Your task to perform on an android device: turn on data saver in the chrome app Image 0: 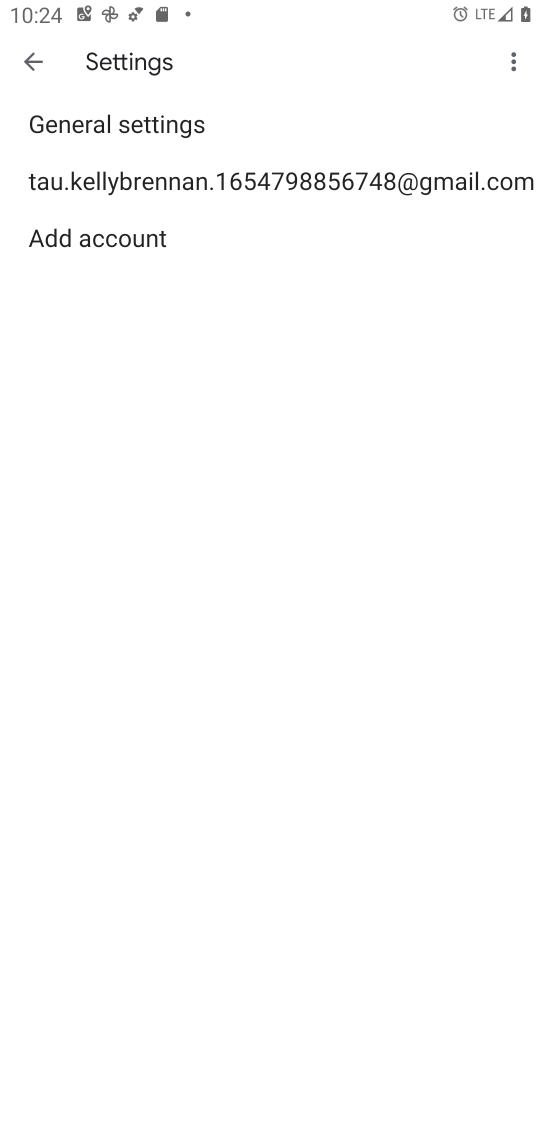
Step 0: press home button
Your task to perform on an android device: turn on data saver in the chrome app Image 1: 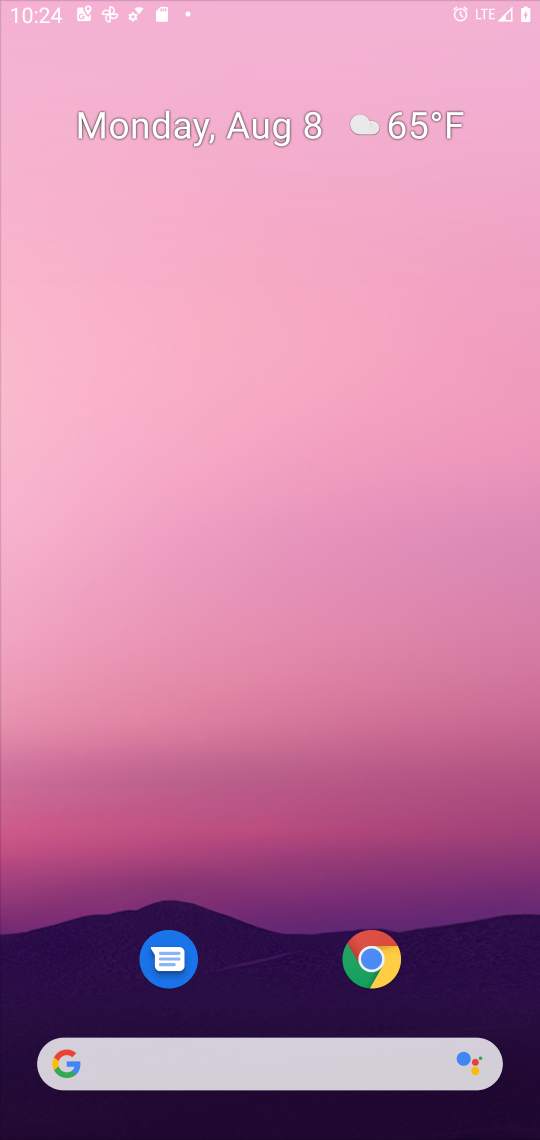
Step 1: drag from (484, 963) to (274, 5)
Your task to perform on an android device: turn on data saver in the chrome app Image 2: 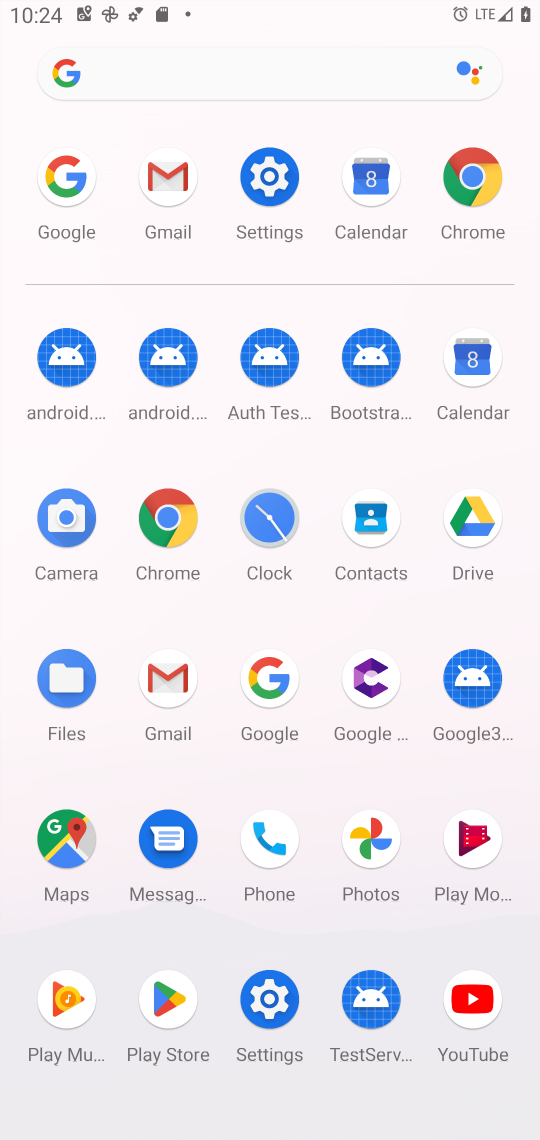
Step 2: click (176, 531)
Your task to perform on an android device: turn on data saver in the chrome app Image 3: 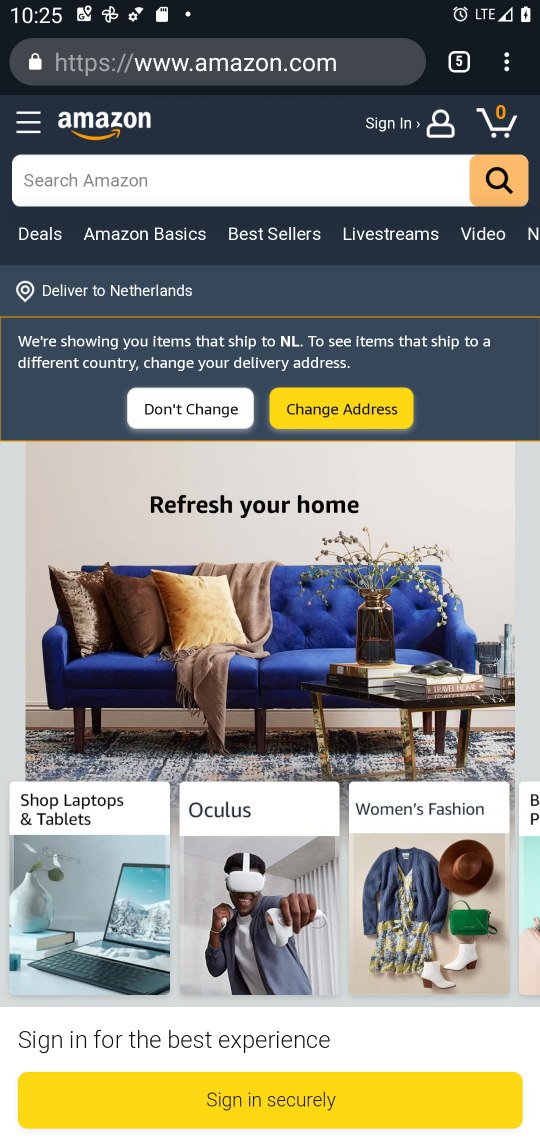
Step 3: click (506, 60)
Your task to perform on an android device: turn on data saver in the chrome app Image 4: 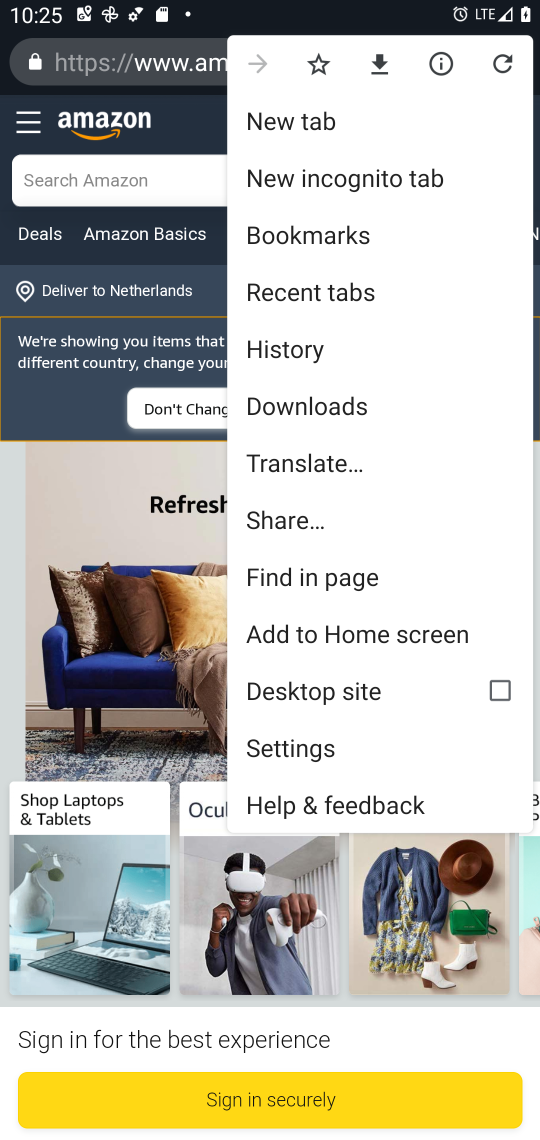
Step 4: click (310, 729)
Your task to perform on an android device: turn on data saver in the chrome app Image 5: 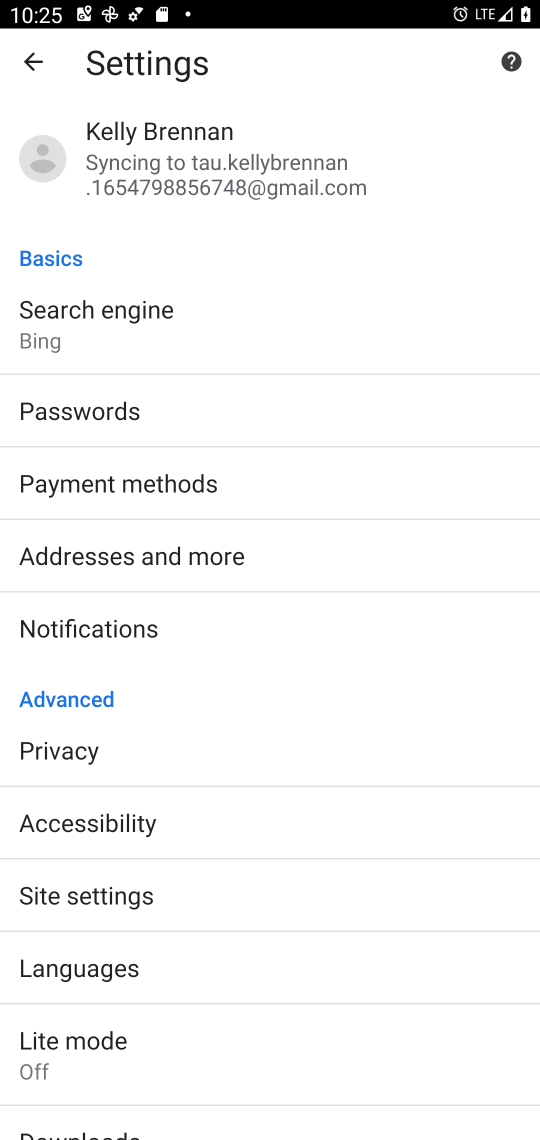
Step 5: click (142, 1061)
Your task to perform on an android device: turn on data saver in the chrome app Image 6: 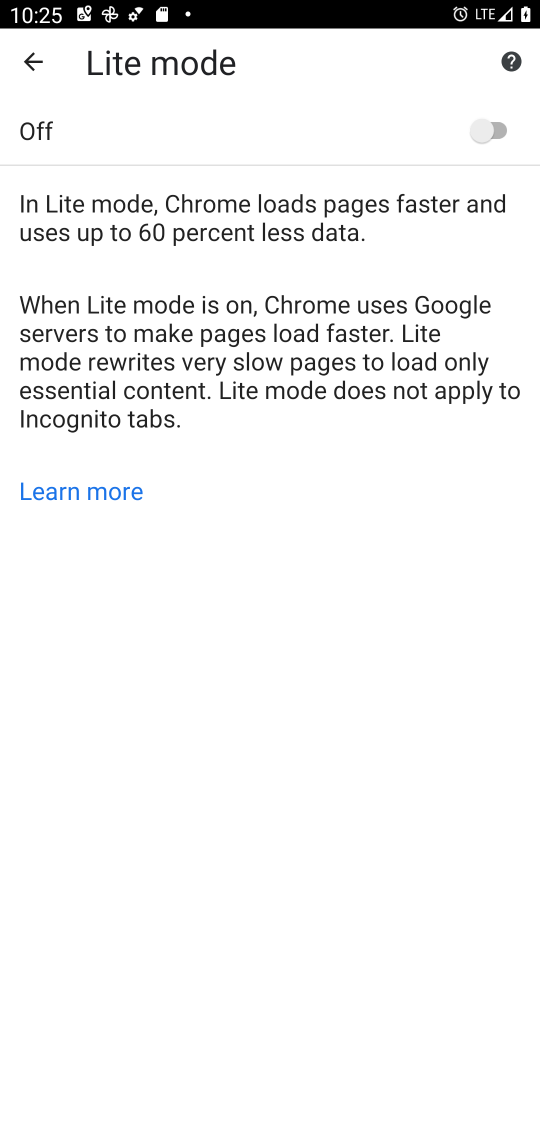
Step 6: click (502, 127)
Your task to perform on an android device: turn on data saver in the chrome app Image 7: 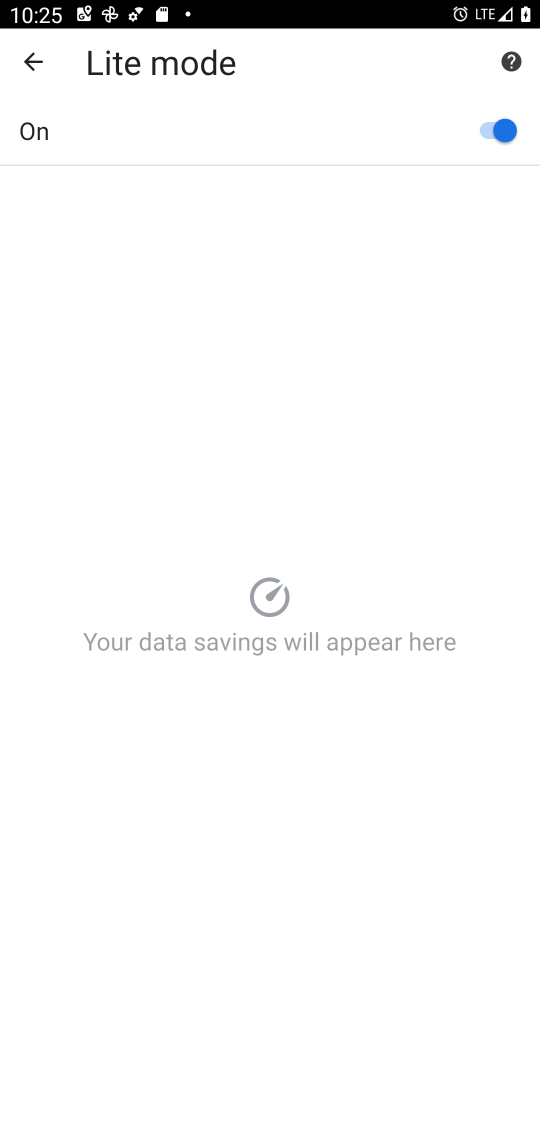
Step 7: task complete